Your task to perform on an android device: turn off javascript in the chrome app Image 0: 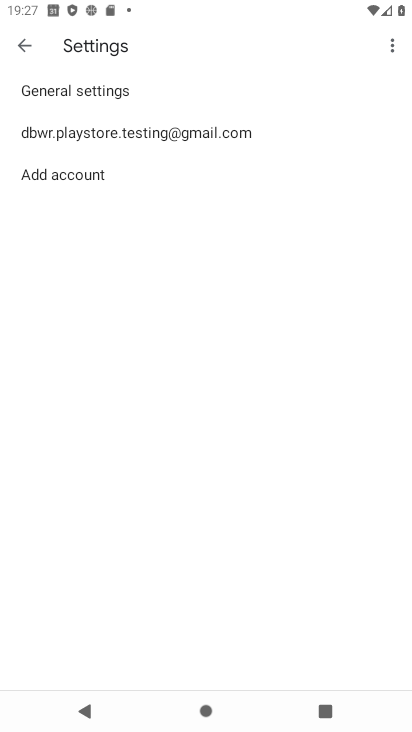
Step 0: press home button
Your task to perform on an android device: turn off javascript in the chrome app Image 1: 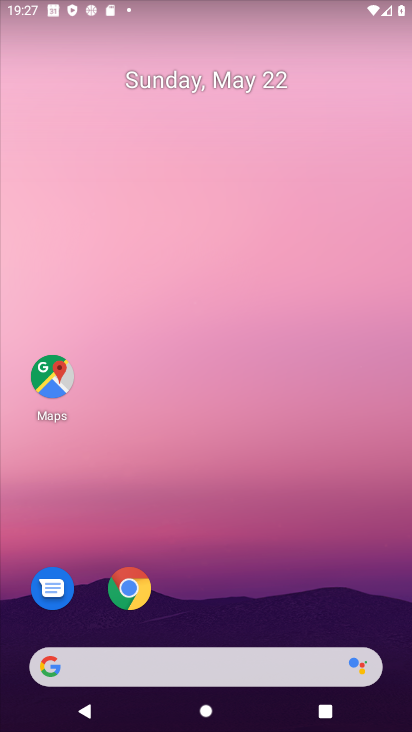
Step 1: click (129, 589)
Your task to perform on an android device: turn off javascript in the chrome app Image 2: 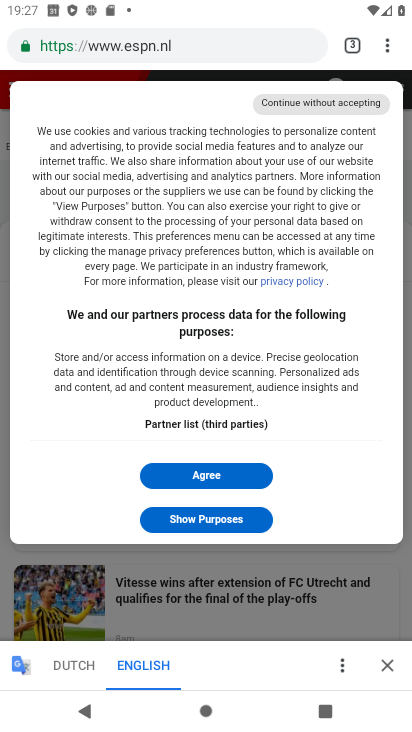
Step 2: click (387, 48)
Your task to perform on an android device: turn off javascript in the chrome app Image 3: 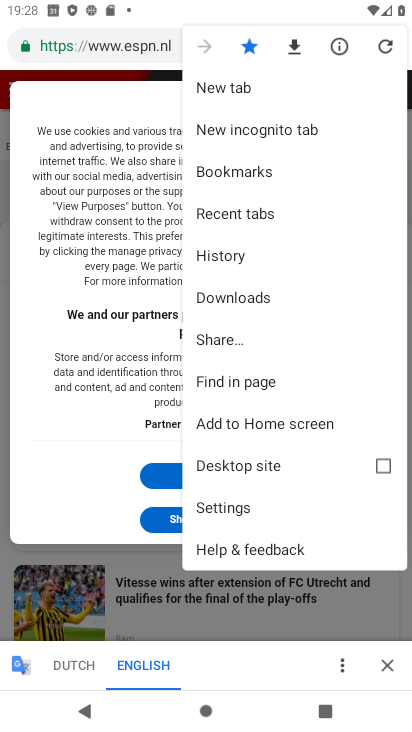
Step 3: click (223, 509)
Your task to perform on an android device: turn off javascript in the chrome app Image 4: 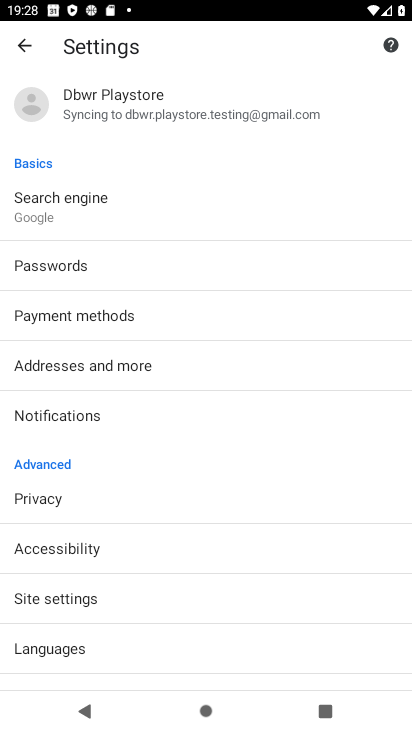
Step 4: click (47, 595)
Your task to perform on an android device: turn off javascript in the chrome app Image 5: 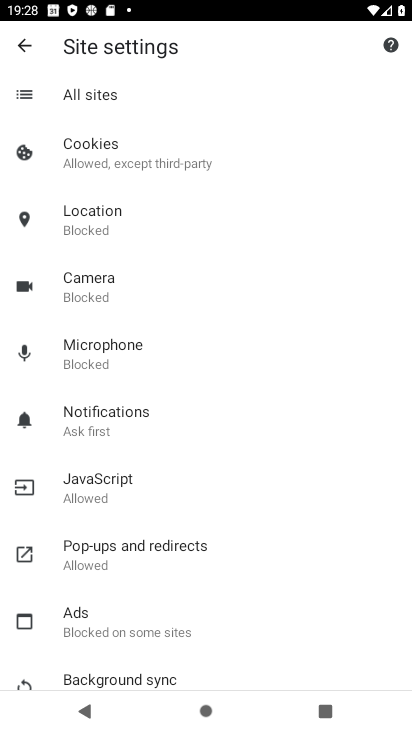
Step 5: click (107, 482)
Your task to perform on an android device: turn off javascript in the chrome app Image 6: 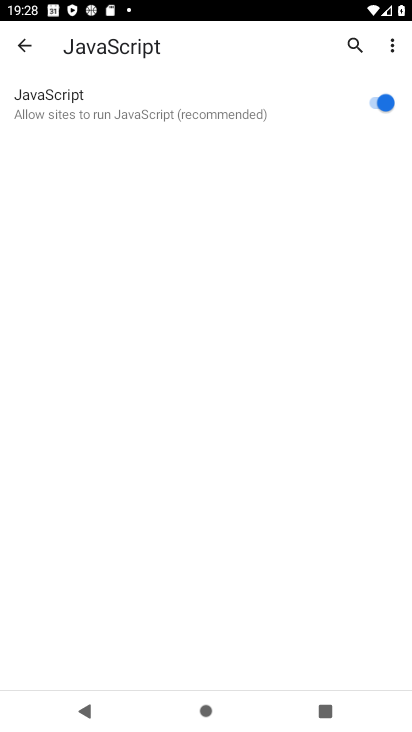
Step 6: click (385, 111)
Your task to perform on an android device: turn off javascript in the chrome app Image 7: 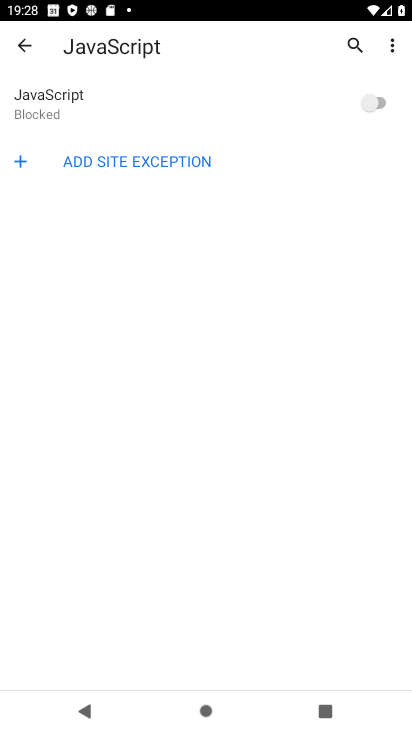
Step 7: task complete